Your task to perform on an android device: open a new tab in the chrome app Image 0: 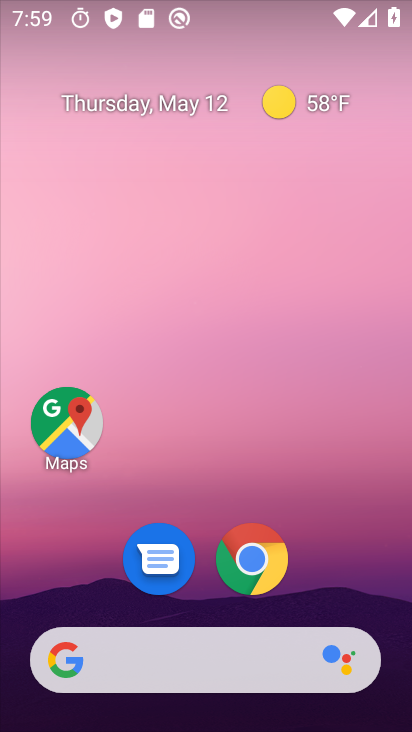
Step 0: click (251, 557)
Your task to perform on an android device: open a new tab in the chrome app Image 1: 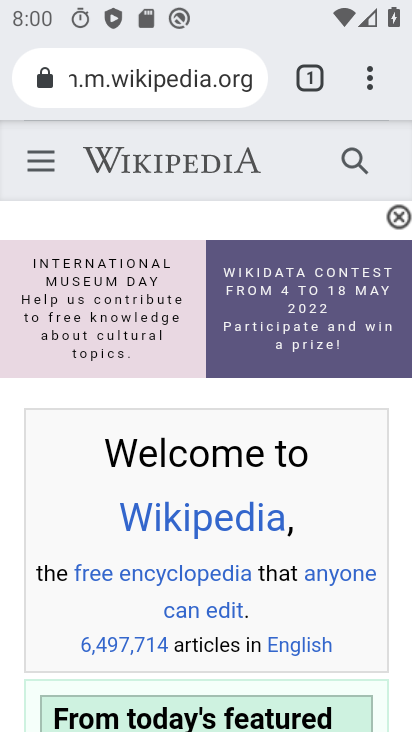
Step 1: click (370, 79)
Your task to perform on an android device: open a new tab in the chrome app Image 2: 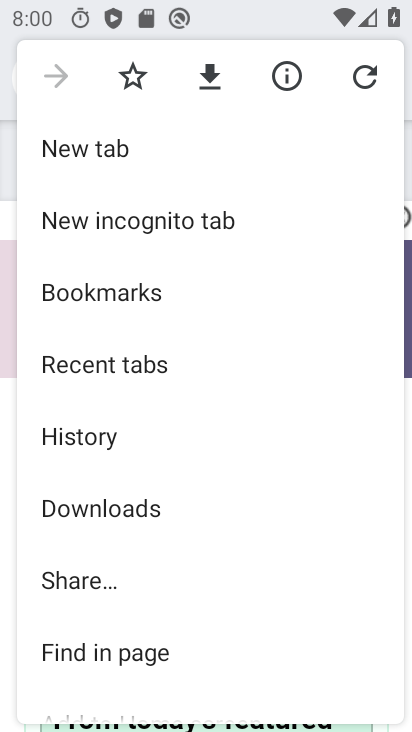
Step 2: click (106, 147)
Your task to perform on an android device: open a new tab in the chrome app Image 3: 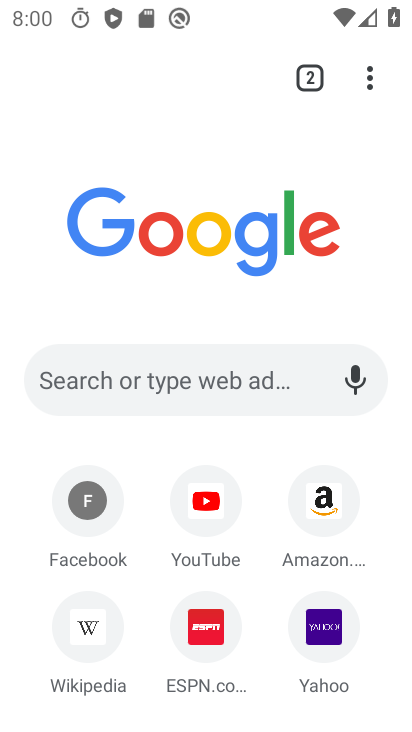
Step 3: task complete